Your task to perform on an android device: Turn off the flashlight Image 0: 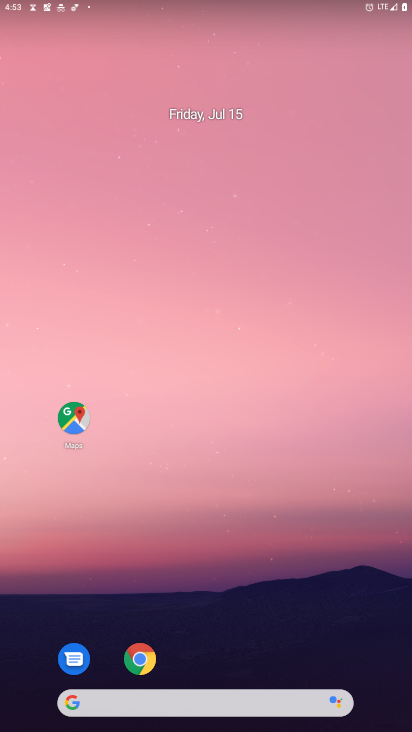
Step 0: drag from (171, 1) to (235, 638)
Your task to perform on an android device: Turn off the flashlight Image 1: 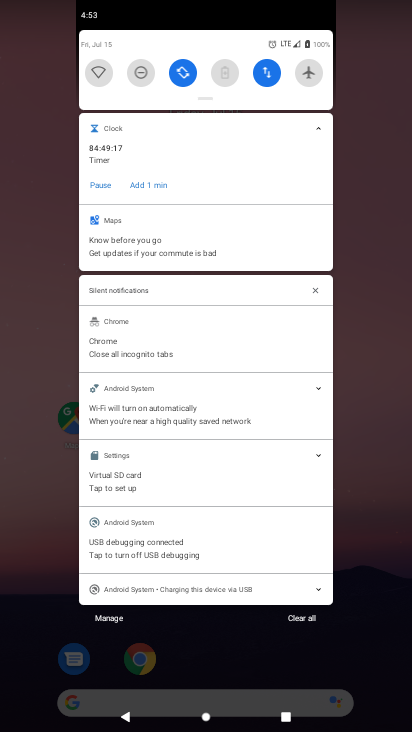
Step 1: task complete